Your task to perform on an android device: see sites visited before in the chrome app Image 0: 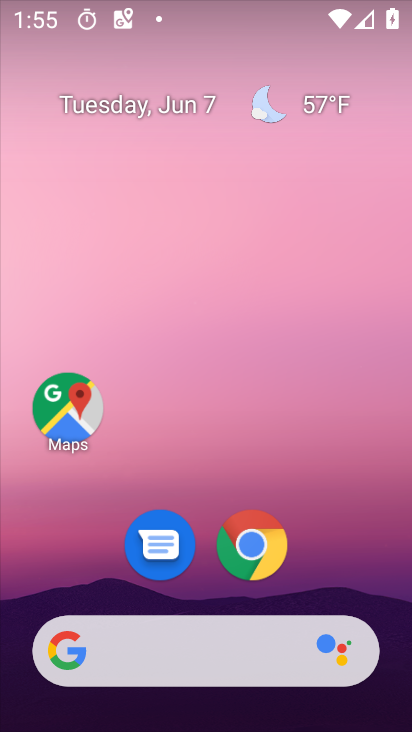
Step 0: press home button
Your task to perform on an android device: see sites visited before in the chrome app Image 1: 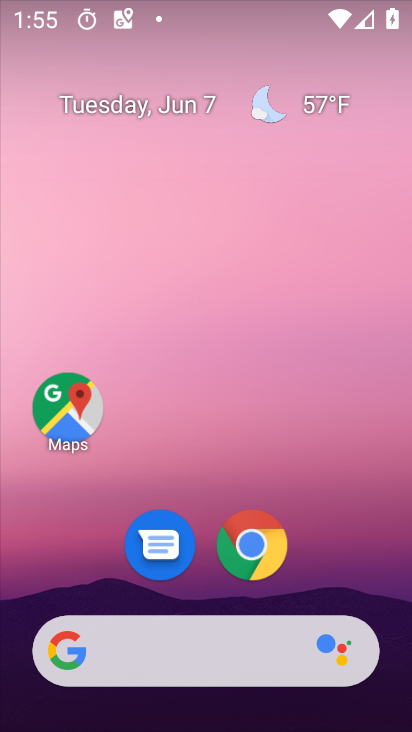
Step 1: click (260, 557)
Your task to perform on an android device: see sites visited before in the chrome app Image 2: 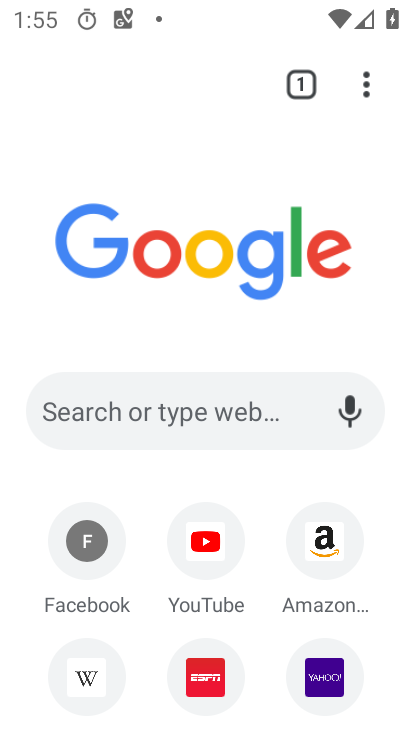
Step 2: click (364, 81)
Your task to perform on an android device: see sites visited before in the chrome app Image 3: 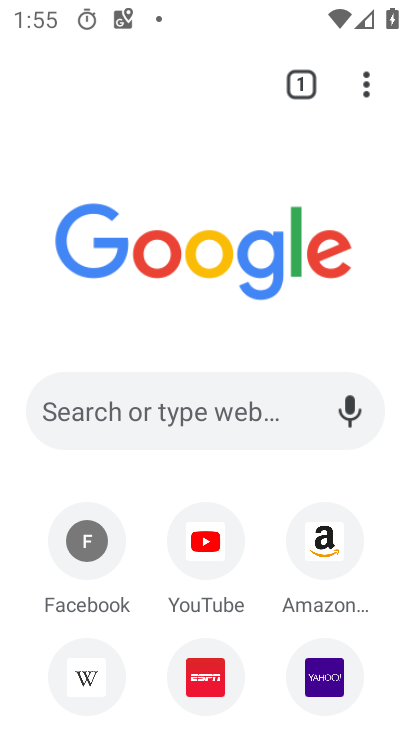
Step 3: click (366, 98)
Your task to perform on an android device: see sites visited before in the chrome app Image 4: 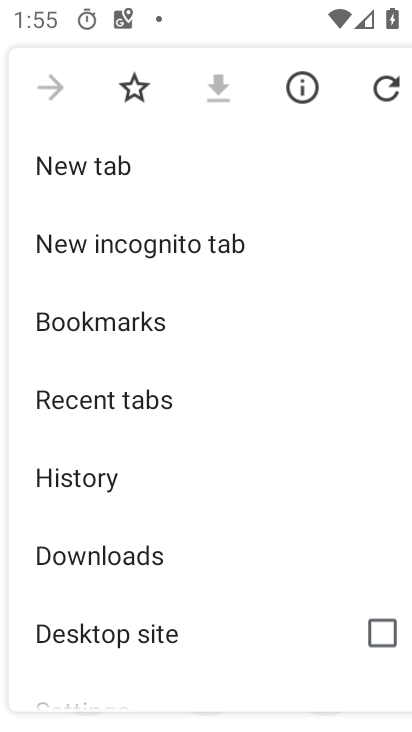
Step 4: click (160, 488)
Your task to perform on an android device: see sites visited before in the chrome app Image 5: 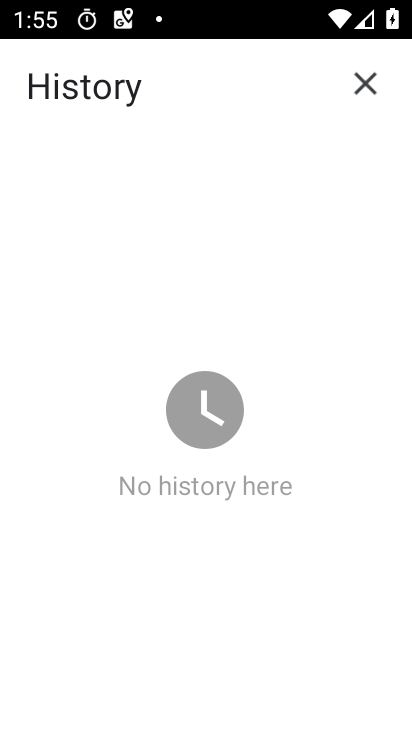
Step 5: task complete